Your task to perform on an android device: Is it going to rain today? Image 0: 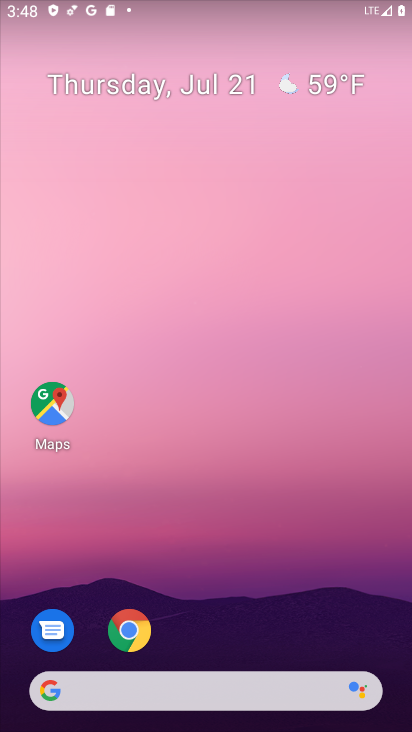
Step 0: click (296, 79)
Your task to perform on an android device: Is it going to rain today? Image 1: 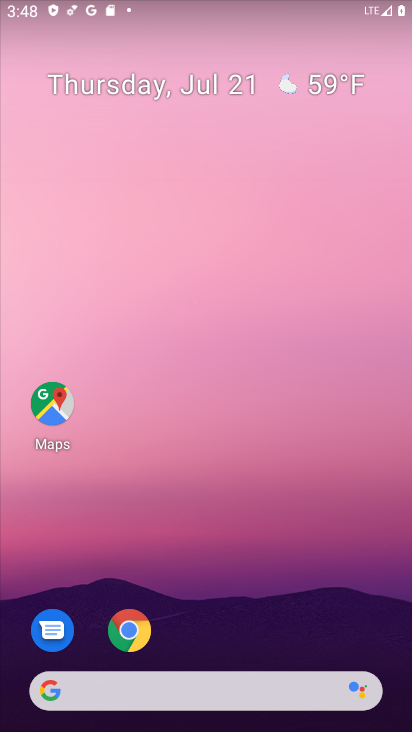
Step 1: click (296, 79)
Your task to perform on an android device: Is it going to rain today? Image 2: 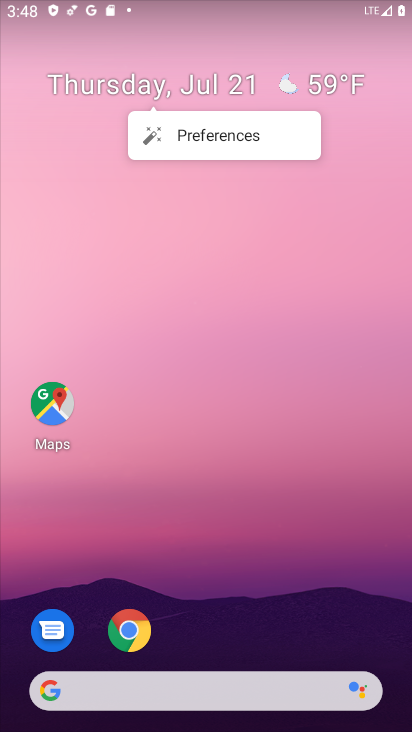
Step 2: click (280, 77)
Your task to perform on an android device: Is it going to rain today? Image 3: 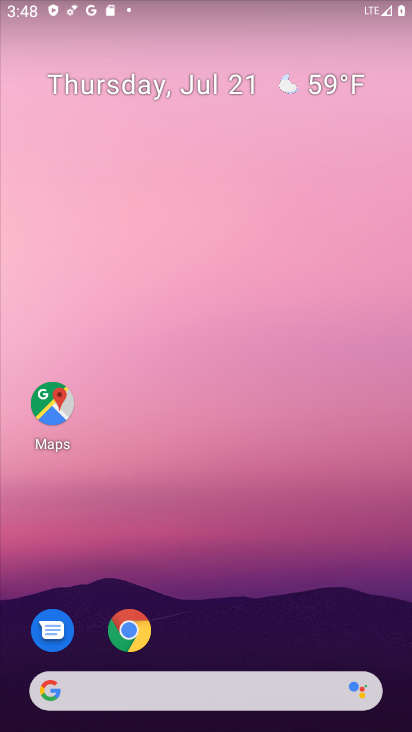
Step 3: click (284, 82)
Your task to perform on an android device: Is it going to rain today? Image 4: 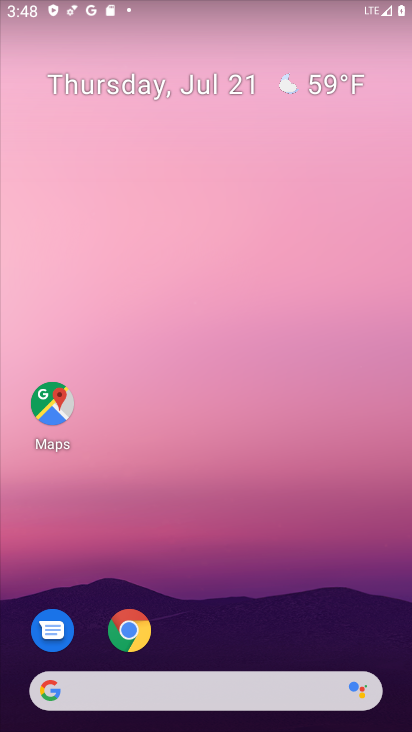
Step 4: click (284, 91)
Your task to perform on an android device: Is it going to rain today? Image 5: 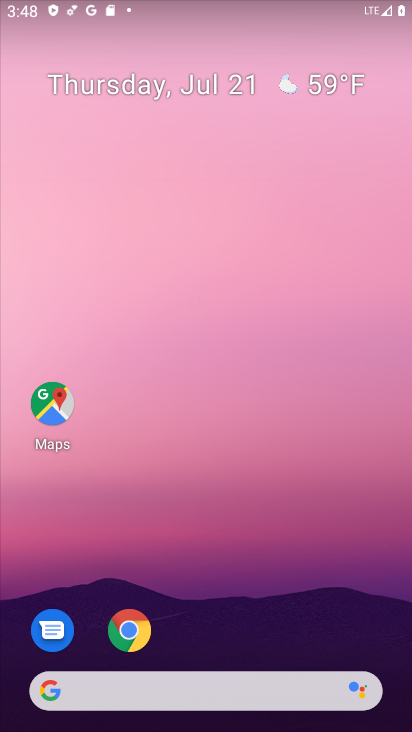
Step 5: click (298, 96)
Your task to perform on an android device: Is it going to rain today? Image 6: 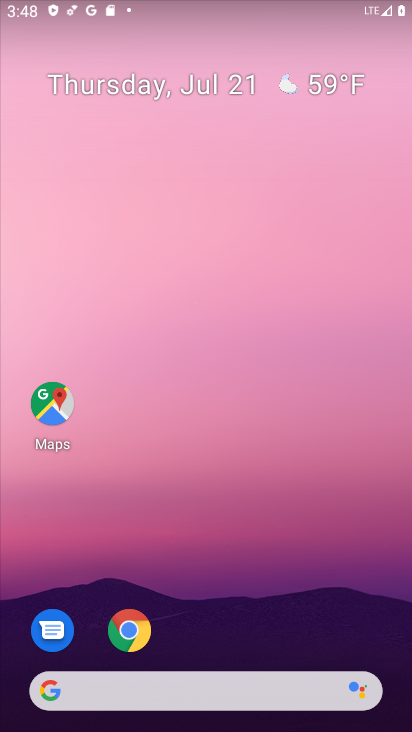
Step 6: drag from (285, 75) to (334, 379)
Your task to perform on an android device: Is it going to rain today? Image 7: 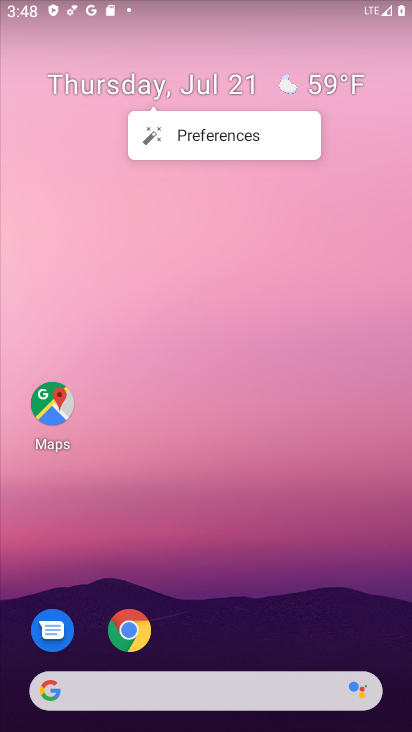
Step 7: drag from (88, 231) to (359, 263)
Your task to perform on an android device: Is it going to rain today? Image 8: 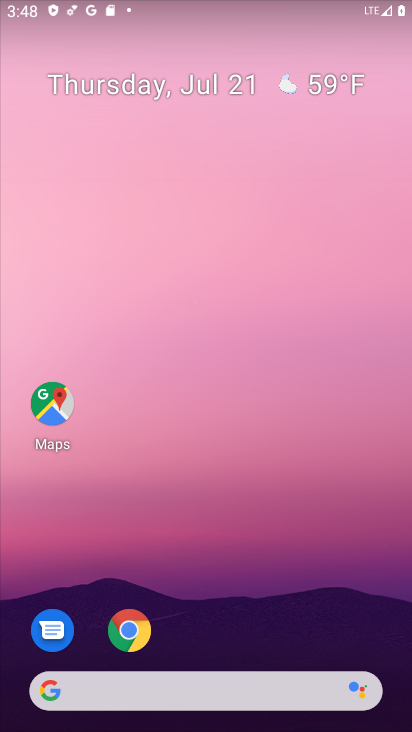
Step 8: drag from (336, 305) to (376, 445)
Your task to perform on an android device: Is it going to rain today? Image 9: 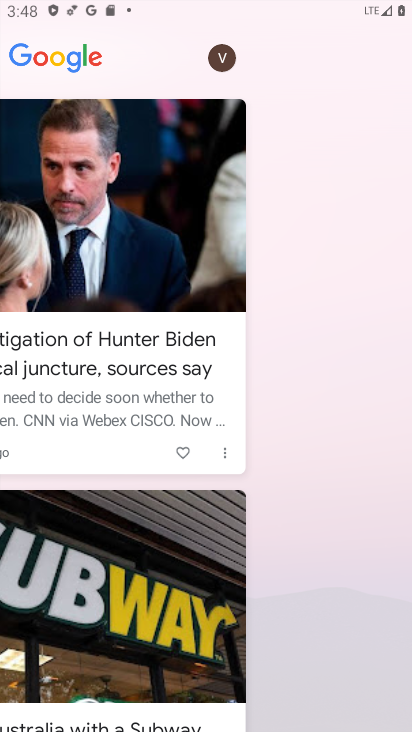
Step 9: drag from (126, 477) to (344, 321)
Your task to perform on an android device: Is it going to rain today? Image 10: 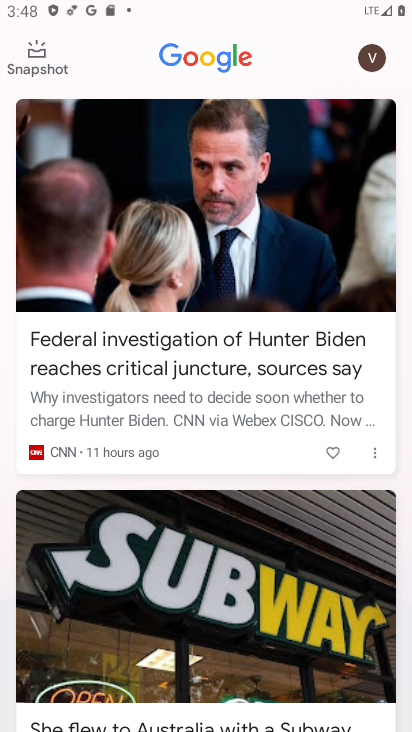
Step 10: drag from (276, 533) to (202, 471)
Your task to perform on an android device: Is it going to rain today? Image 11: 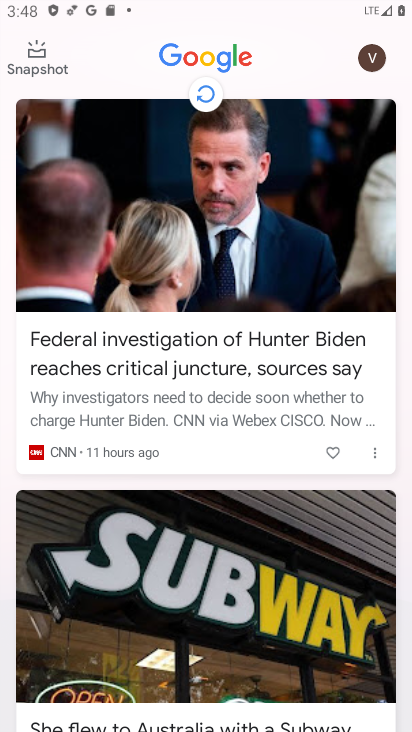
Step 11: drag from (178, 168) to (253, 481)
Your task to perform on an android device: Is it going to rain today? Image 12: 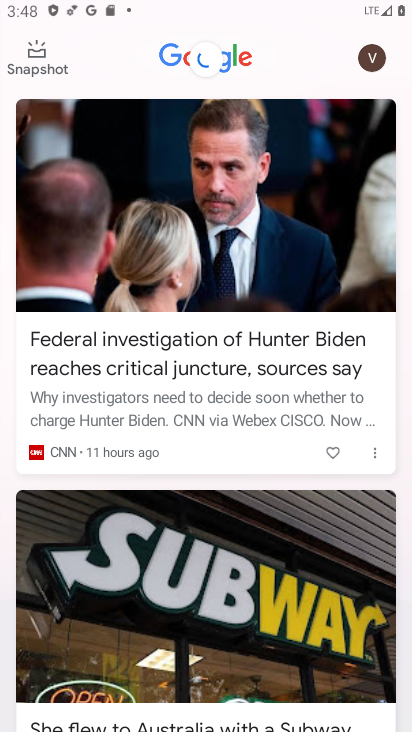
Step 12: drag from (234, 326) to (269, 536)
Your task to perform on an android device: Is it going to rain today? Image 13: 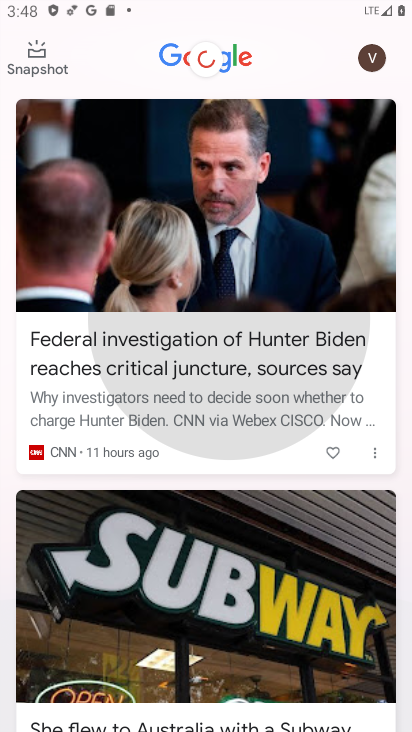
Step 13: drag from (189, 132) to (207, 350)
Your task to perform on an android device: Is it going to rain today? Image 14: 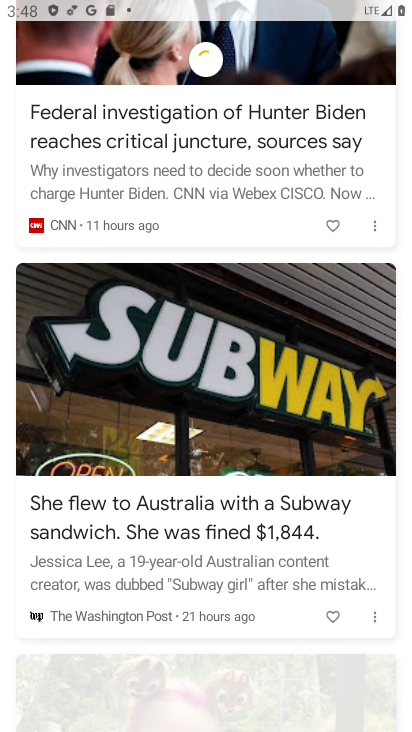
Step 14: drag from (209, 117) to (267, 539)
Your task to perform on an android device: Is it going to rain today? Image 15: 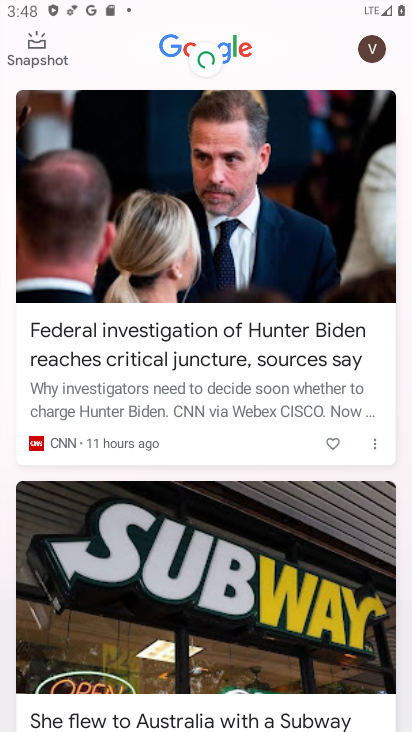
Step 15: drag from (276, 107) to (299, 485)
Your task to perform on an android device: Is it going to rain today? Image 16: 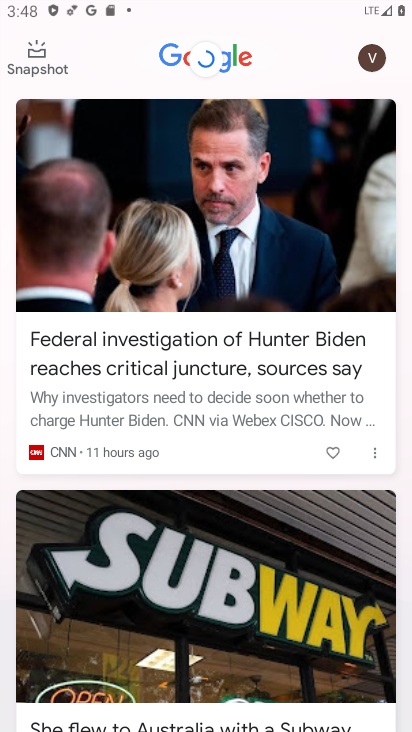
Step 16: click (266, 54)
Your task to perform on an android device: Is it going to rain today? Image 17: 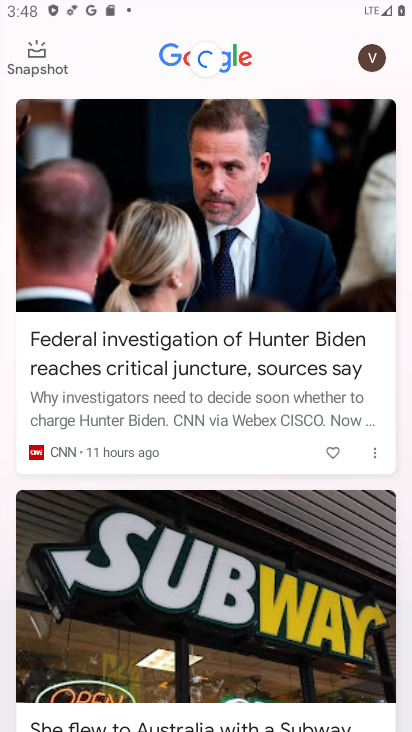
Step 17: click (270, 56)
Your task to perform on an android device: Is it going to rain today? Image 18: 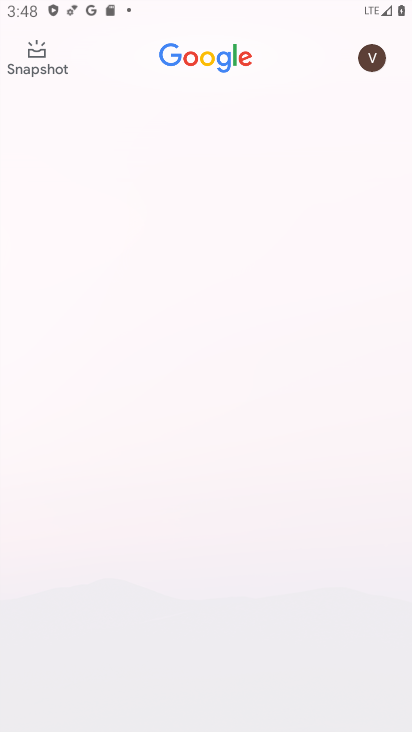
Step 18: click (279, 68)
Your task to perform on an android device: Is it going to rain today? Image 19: 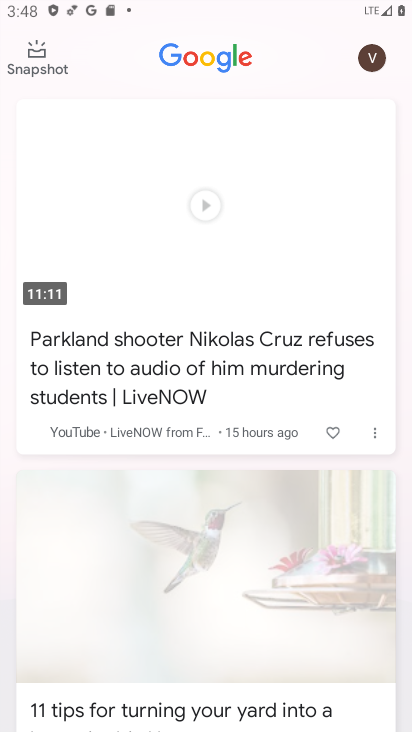
Step 19: click (286, 57)
Your task to perform on an android device: Is it going to rain today? Image 20: 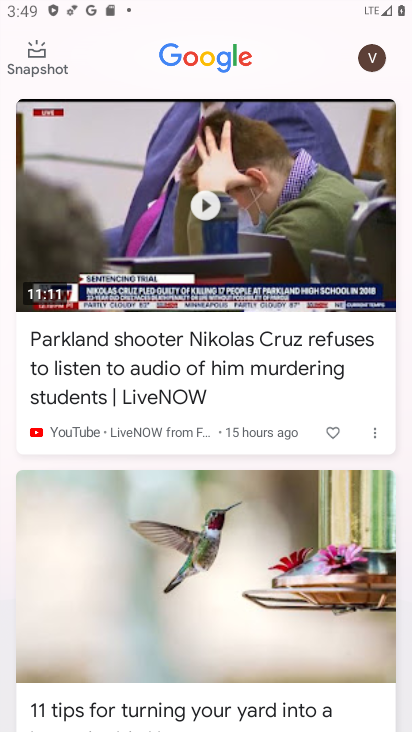
Step 20: drag from (198, 114) to (223, 303)
Your task to perform on an android device: Is it going to rain today? Image 21: 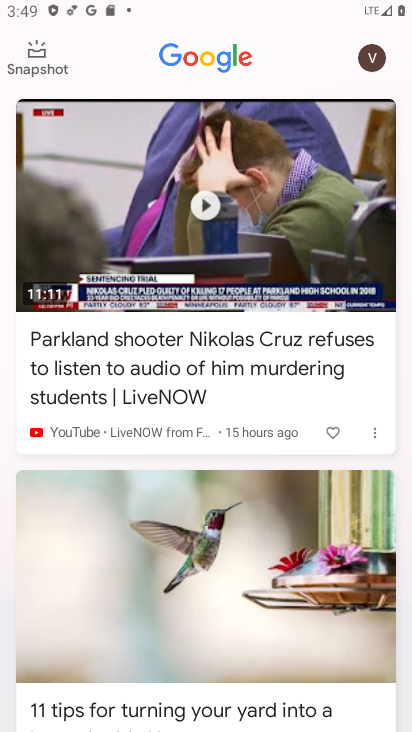
Step 21: drag from (192, 140) to (252, 366)
Your task to perform on an android device: Is it going to rain today? Image 22: 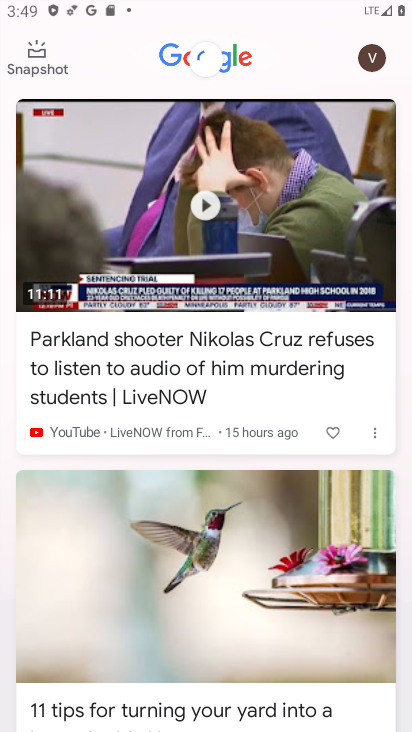
Step 22: drag from (185, 166) to (219, 427)
Your task to perform on an android device: Is it going to rain today? Image 23: 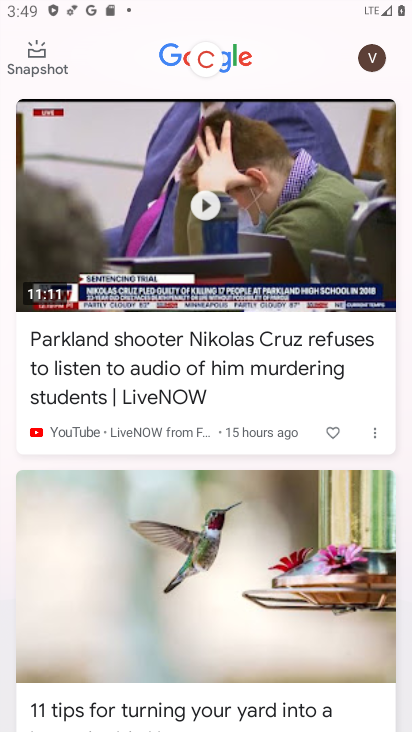
Step 23: drag from (160, 227) to (241, 489)
Your task to perform on an android device: Is it going to rain today? Image 24: 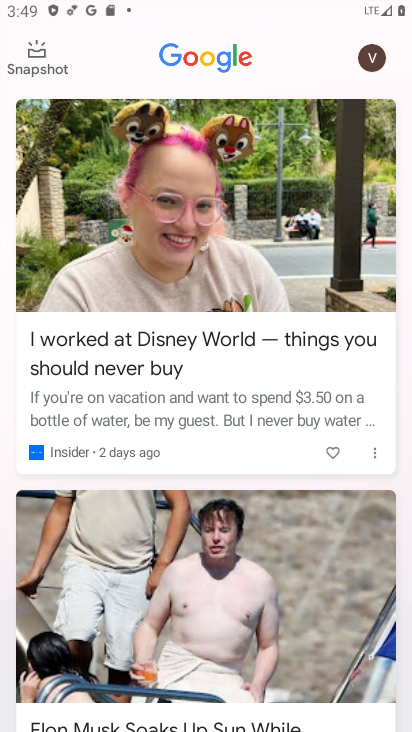
Step 24: click (206, 62)
Your task to perform on an android device: Is it going to rain today? Image 25: 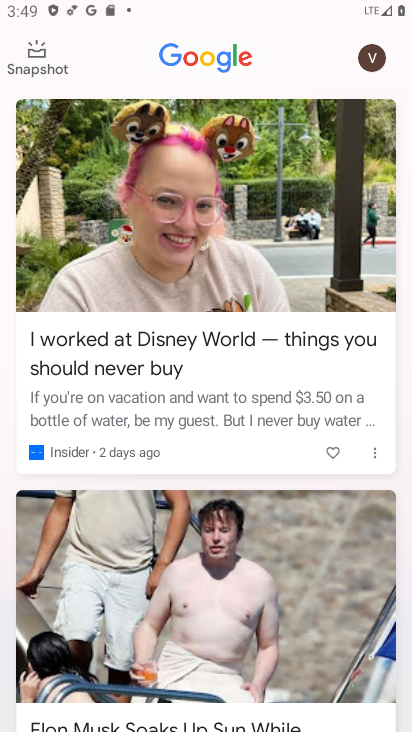
Step 25: press back button
Your task to perform on an android device: Is it going to rain today? Image 26: 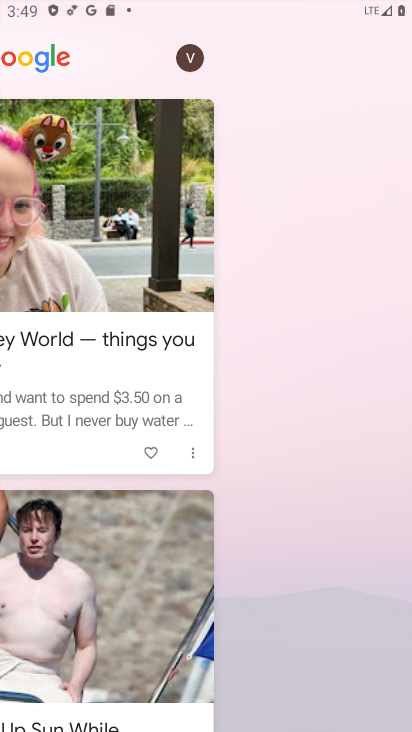
Step 26: press back button
Your task to perform on an android device: Is it going to rain today? Image 27: 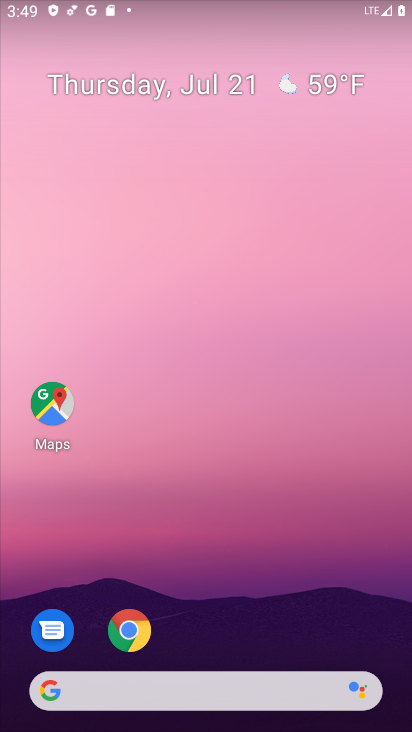
Step 27: press back button
Your task to perform on an android device: Is it going to rain today? Image 28: 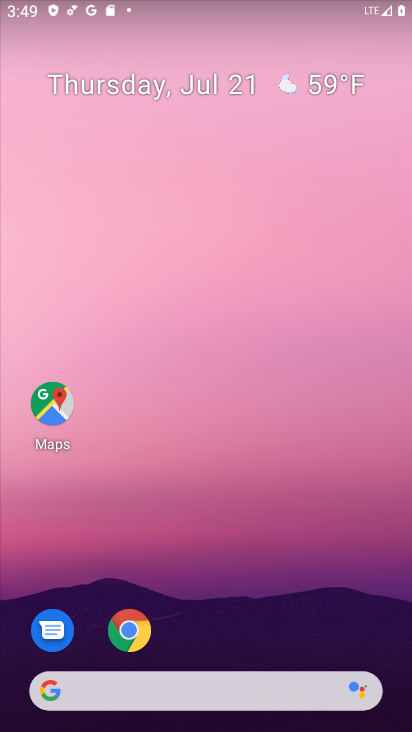
Step 28: drag from (148, 523) to (95, 84)
Your task to perform on an android device: Is it going to rain today? Image 29: 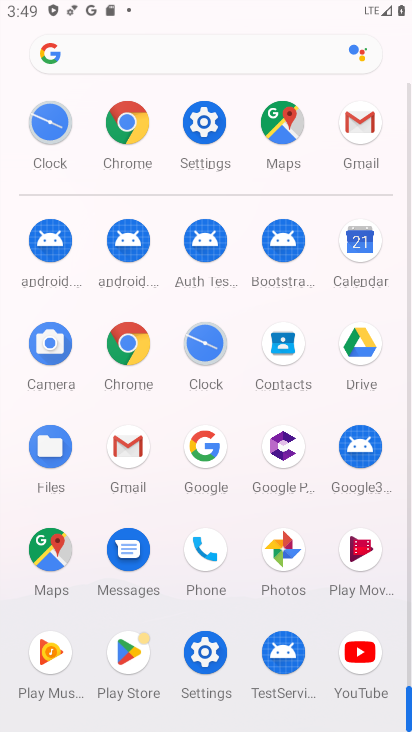
Step 29: click (110, 137)
Your task to perform on an android device: Is it going to rain today? Image 30: 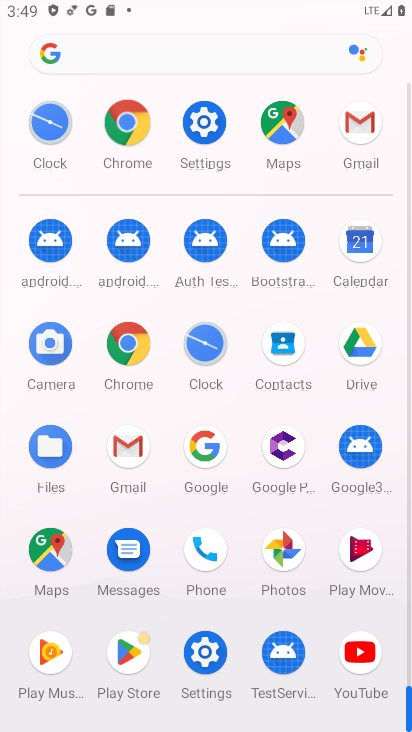
Step 30: click (125, 127)
Your task to perform on an android device: Is it going to rain today? Image 31: 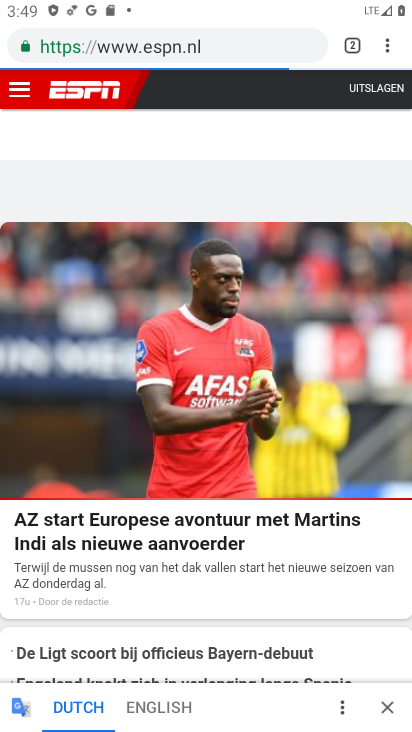
Step 31: drag from (393, 40) to (216, 91)
Your task to perform on an android device: Is it going to rain today? Image 32: 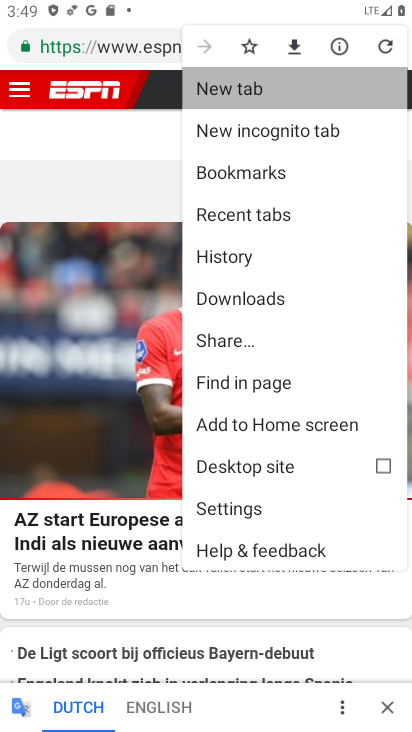
Step 32: click (216, 91)
Your task to perform on an android device: Is it going to rain today? Image 33: 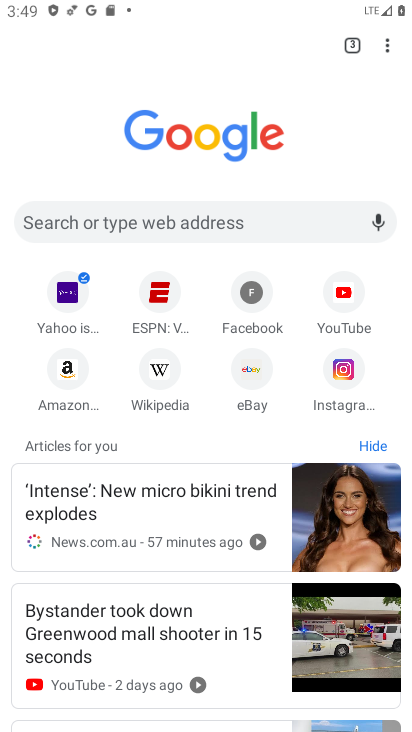
Step 33: click (91, 219)
Your task to perform on an android device: Is it going to rain today? Image 34: 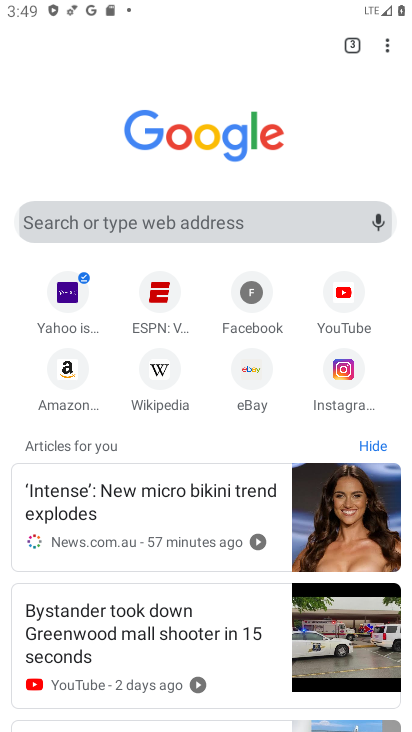
Step 34: click (102, 211)
Your task to perform on an android device: Is it going to rain today? Image 35: 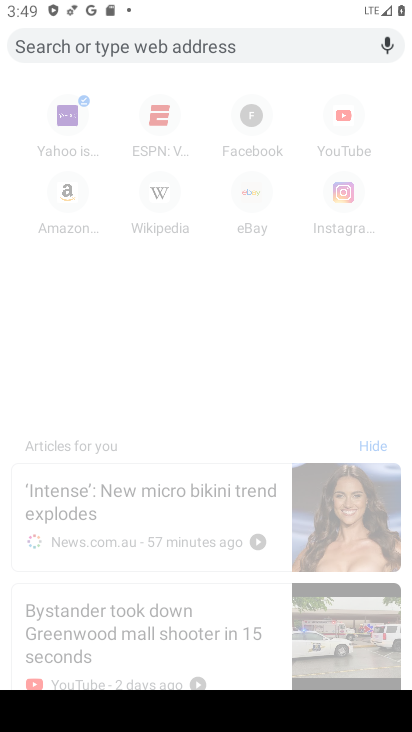
Step 35: type "is it going to rain today?"
Your task to perform on an android device: Is it going to rain today? Image 36: 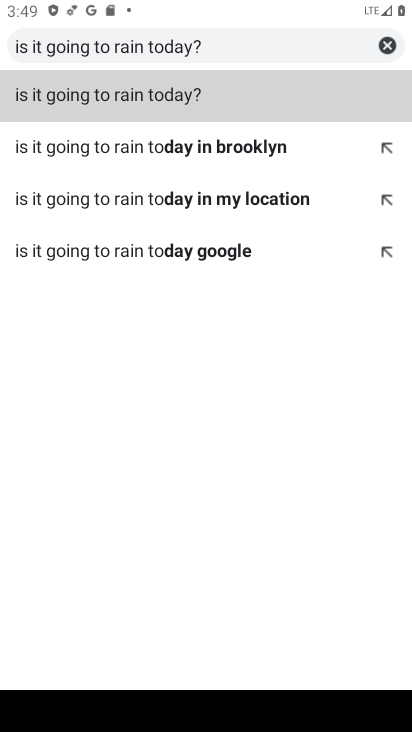
Step 36: click (151, 99)
Your task to perform on an android device: Is it going to rain today? Image 37: 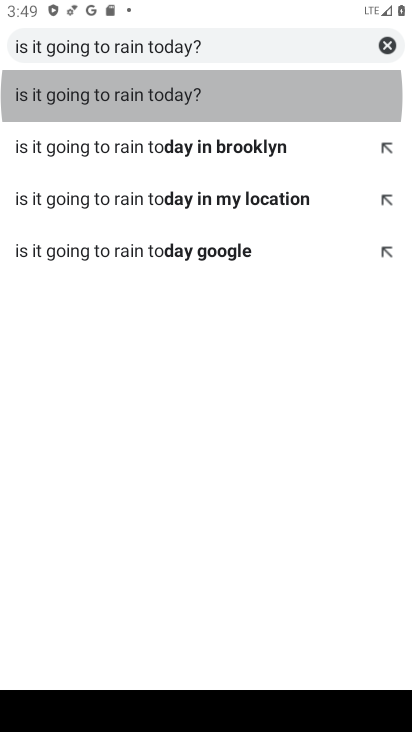
Step 37: click (152, 97)
Your task to perform on an android device: Is it going to rain today? Image 38: 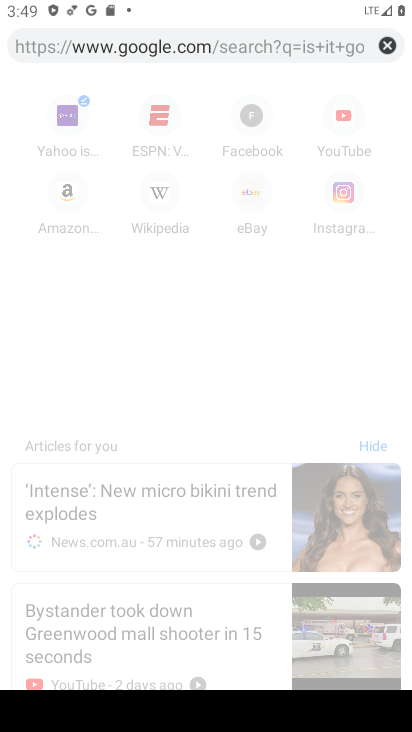
Step 38: click (152, 97)
Your task to perform on an android device: Is it going to rain today? Image 39: 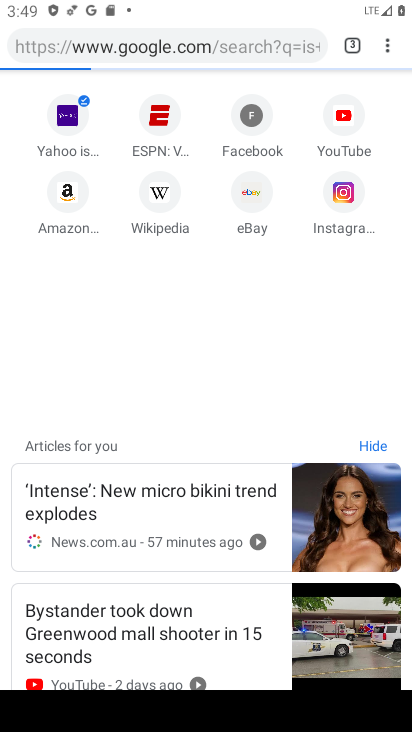
Step 39: click (152, 97)
Your task to perform on an android device: Is it going to rain today? Image 40: 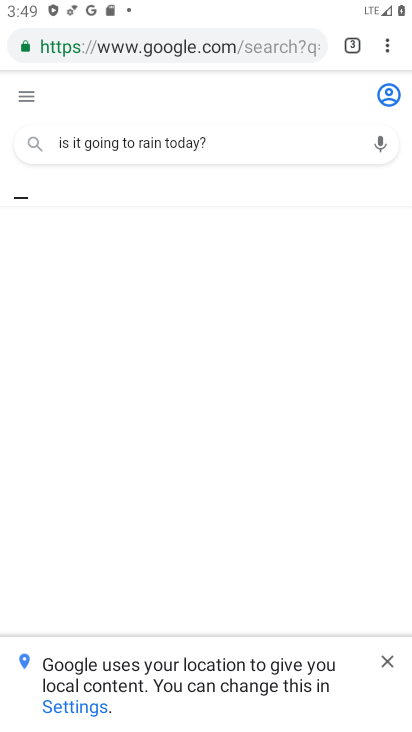
Step 40: task complete